Your task to perform on an android device: open app "Google Keep" Image 0: 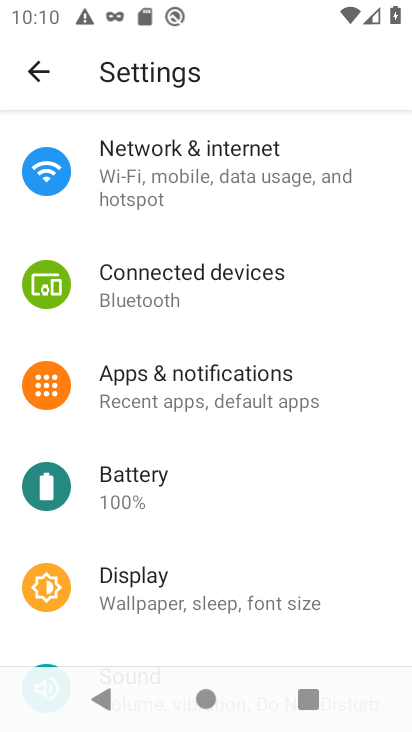
Step 0: press home button
Your task to perform on an android device: open app "Google Keep" Image 1: 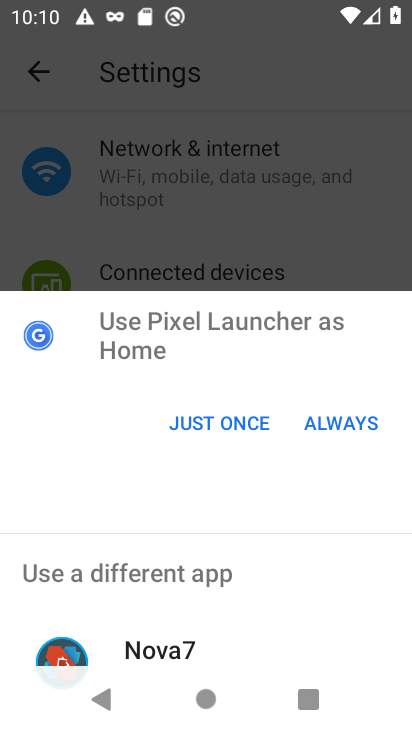
Step 1: press home button
Your task to perform on an android device: open app "Google Keep" Image 2: 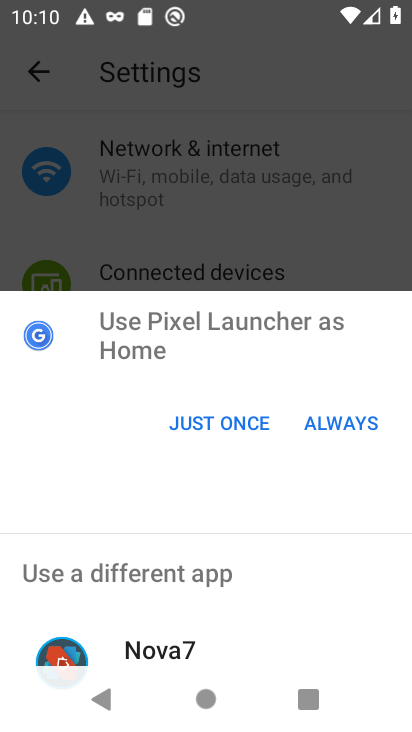
Step 2: press home button
Your task to perform on an android device: open app "Google Keep" Image 3: 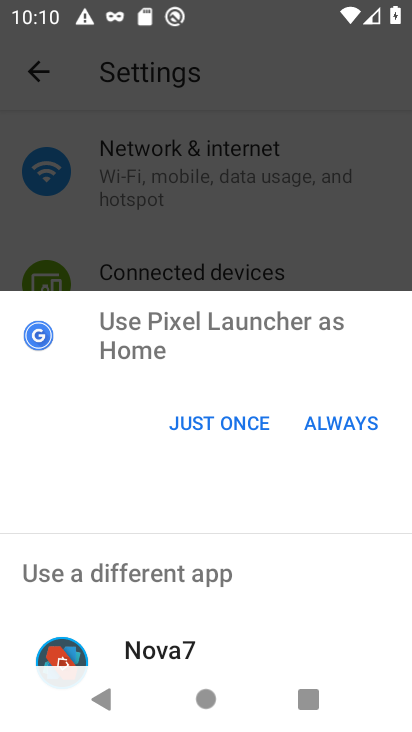
Step 3: press home button
Your task to perform on an android device: open app "Google Keep" Image 4: 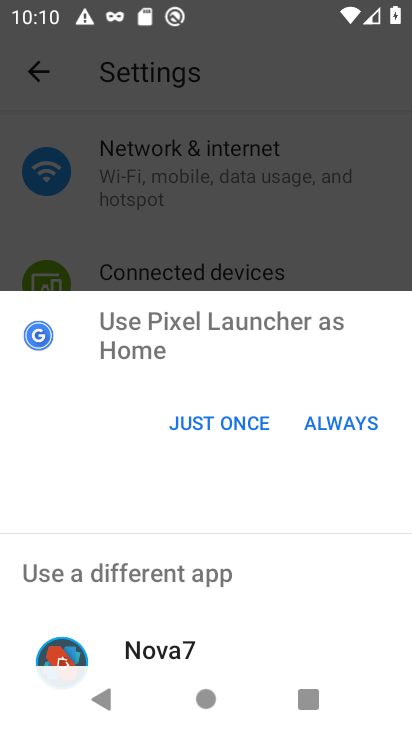
Step 4: press home button
Your task to perform on an android device: open app "Google Keep" Image 5: 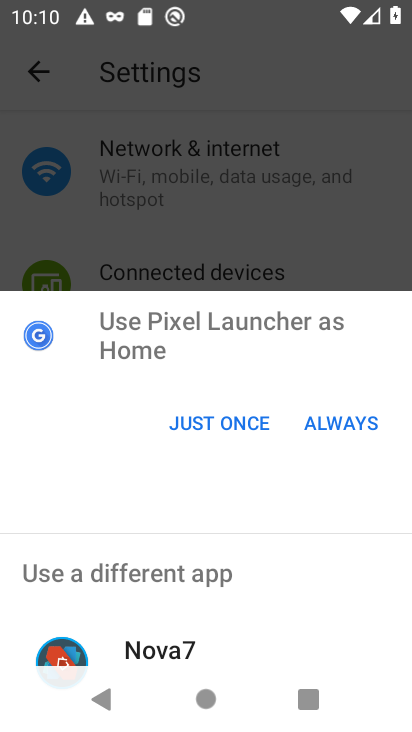
Step 5: press home button
Your task to perform on an android device: open app "Google Keep" Image 6: 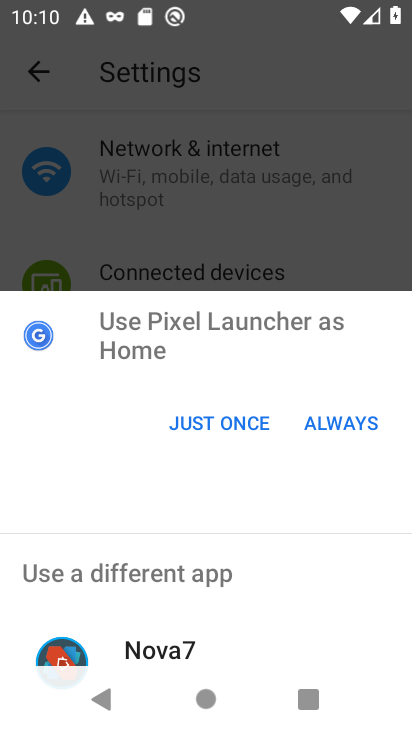
Step 6: press home button
Your task to perform on an android device: open app "Google Keep" Image 7: 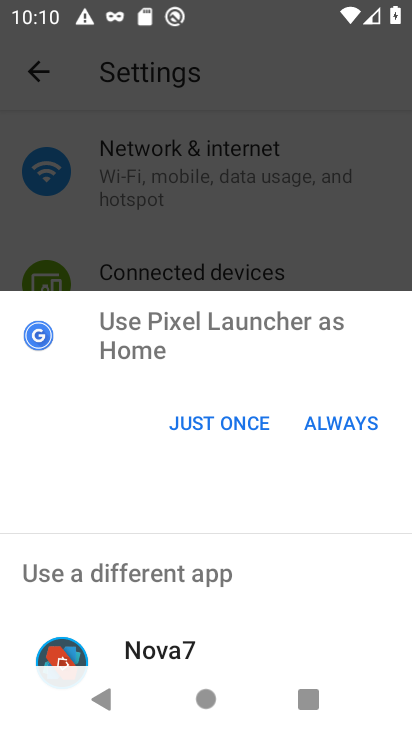
Step 7: press back button
Your task to perform on an android device: open app "Google Keep" Image 8: 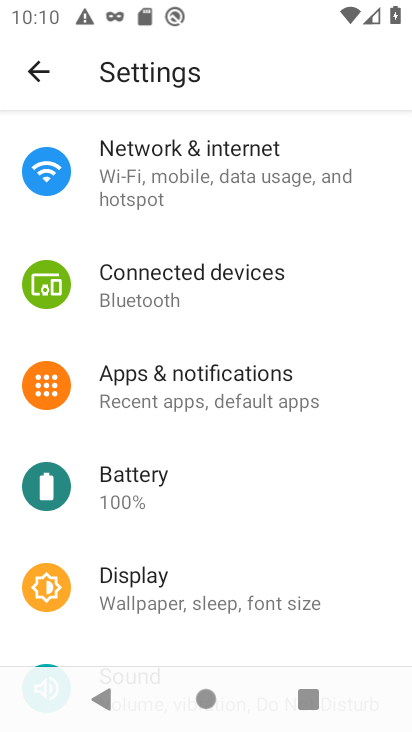
Step 8: press home button
Your task to perform on an android device: open app "Google Keep" Image 9: 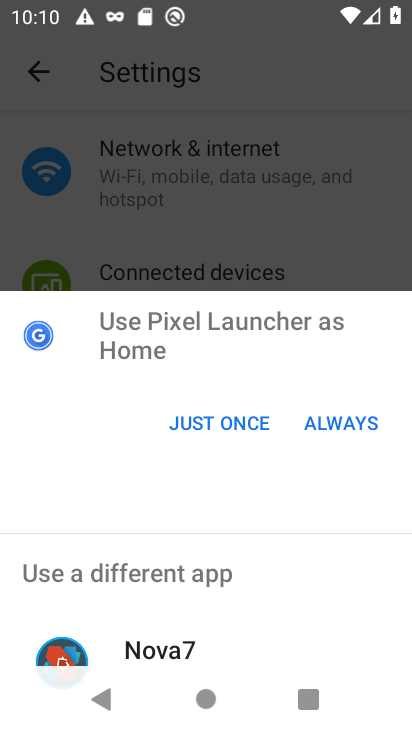
Step 9: click (218, 417)
Your task to perform on an android device: open app "Google Keep" Image 10: 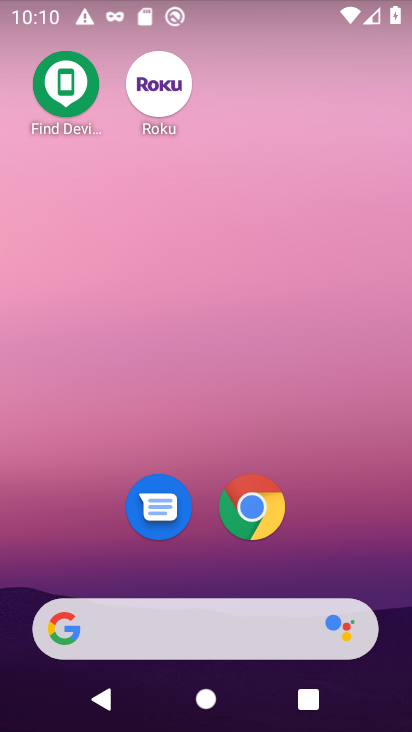
Step 10: drag from (123, 626) to (208, 73)
Your task to perform on an android device: open app "Google Keep" Image 11: 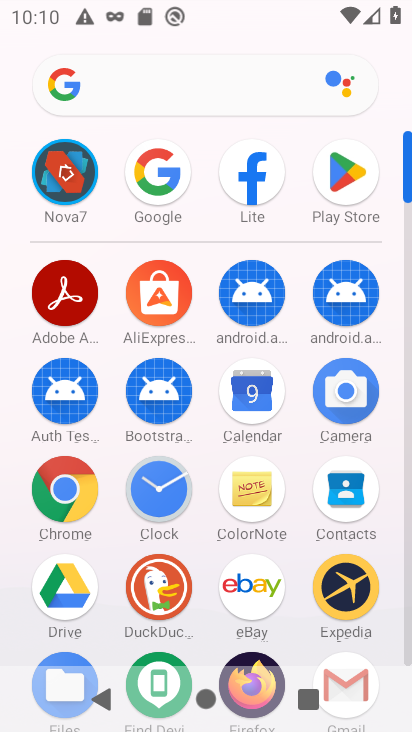
Step 11: click (342, 189)
Your task to perform on an android device: open app "Google Keep" Image 12: 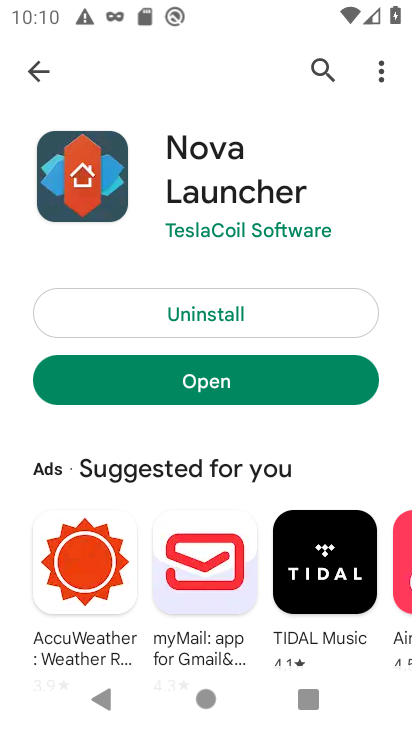
Step 12: click (315, 68)
Your task to perform on an android device: open app "Google Keep" Image 13: 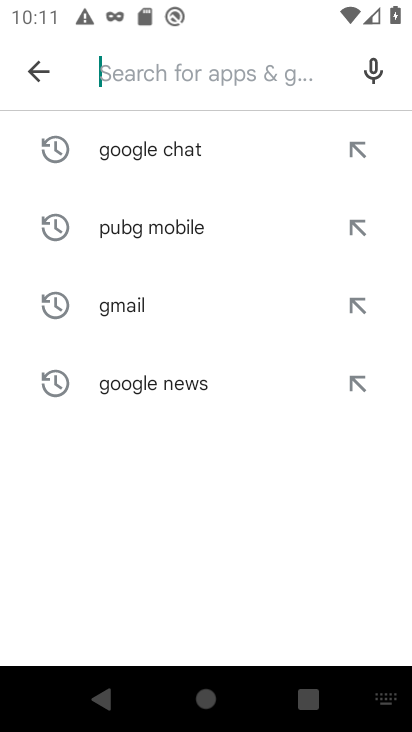
Step 13: type "Google Keep"
Your task to perform on an android device: open app "Google Keep" Image 14: 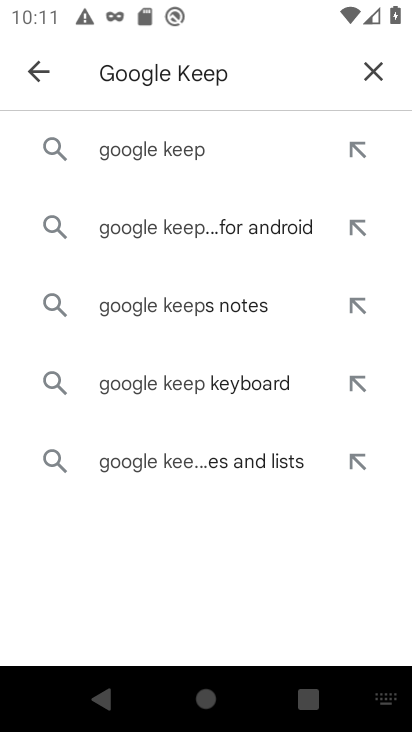
Step 14: click (171, 153)
Your task to perform on an android device: open app "Google Keep" Image 15: 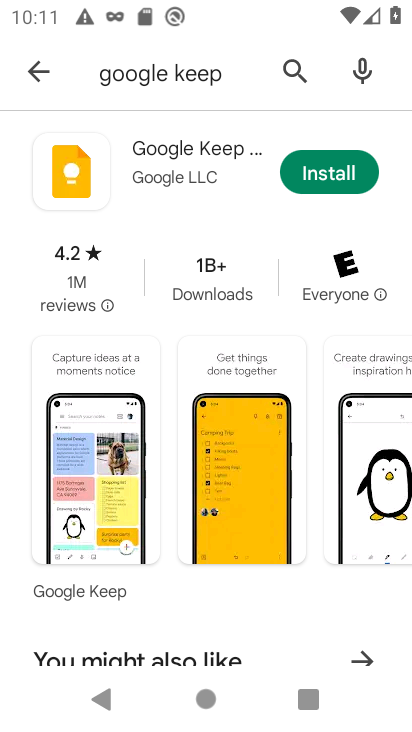
Step 15: task complete